Your task to perform on an android device: Go to ESPN.com Image 0: 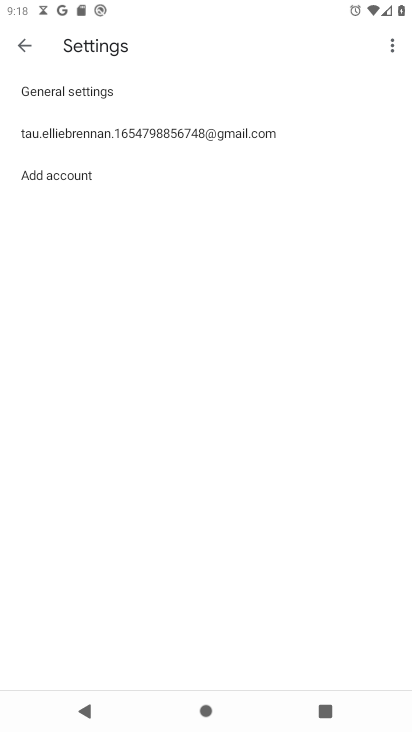
Step 0: press home button
Your task to perform on an android device: Go to ESPN.com Image 1: 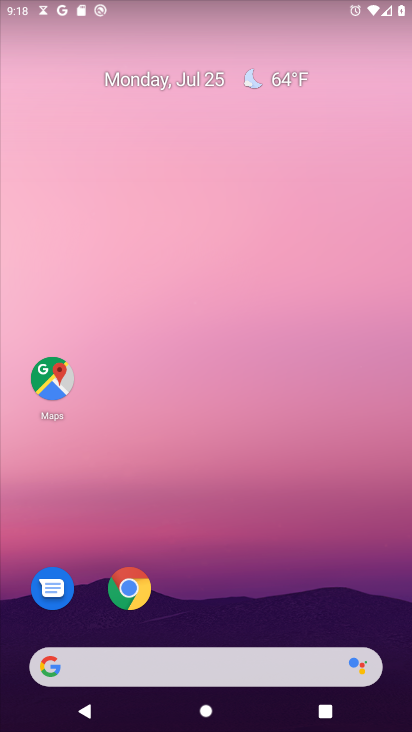
Step 1: click (120, 605)
Your task to perform on an android device: Go to ESPN.com Image 2: 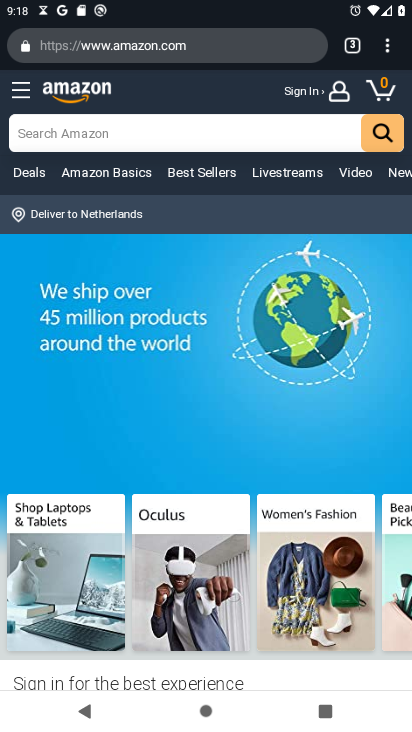
Step 2: click (144, 56)
Your task to perform on an android device: Go to ESPN.com Image 3: 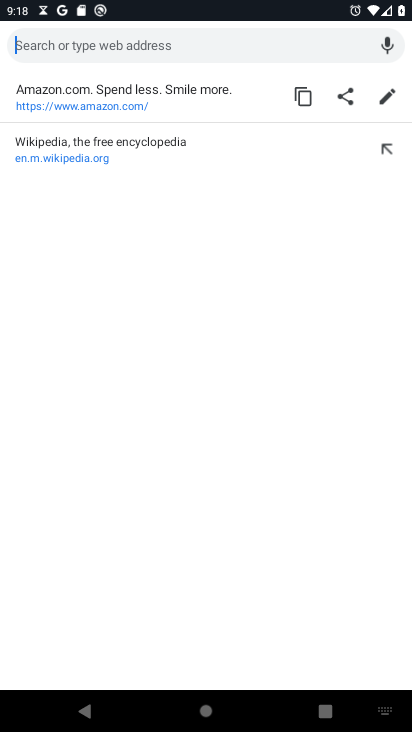
Step 3: type "espn.com"
Your task to perform on an android device: Go to ESPN.com Image 4: 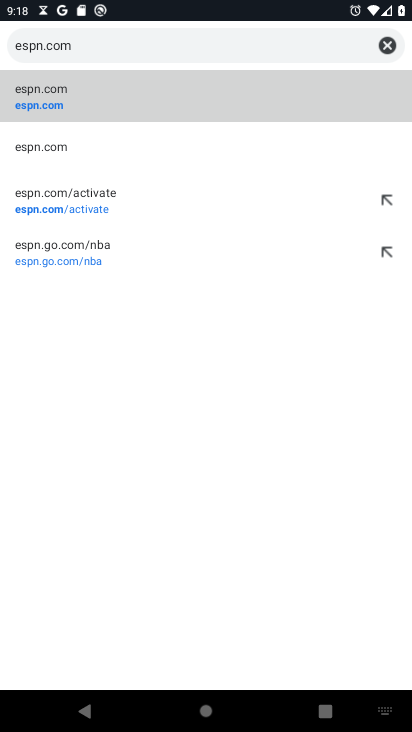
Step 4: click (78, 109)
Your task to perform on an android device: Go to ESPN.com Image 5: 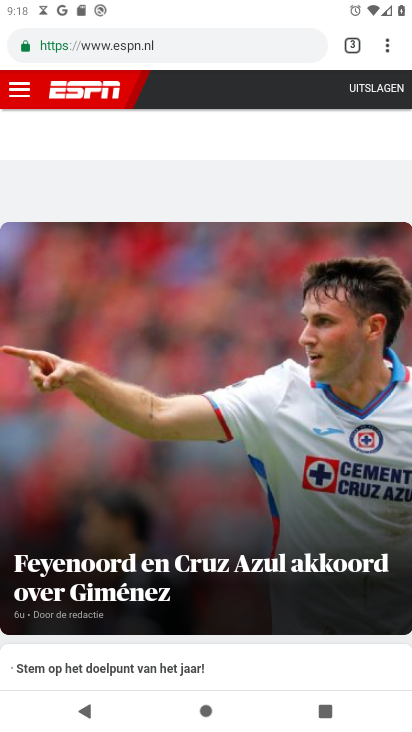
Step 5: task complete